Your task to perform on an android device: Show me recent news Image 0: 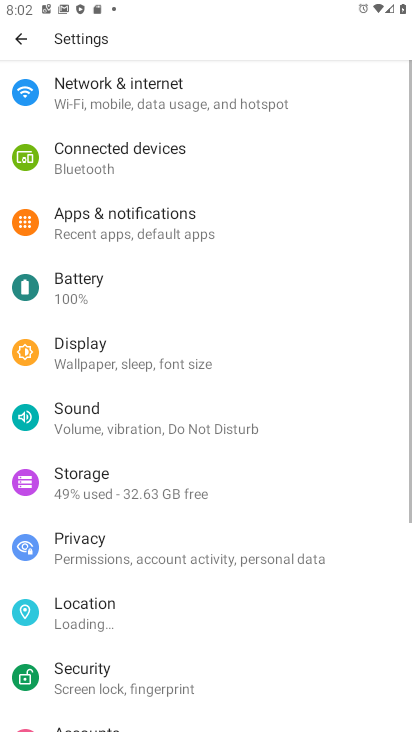
Step 0: press home button
Your task to perform on an android device: Show me recent news Image 1: 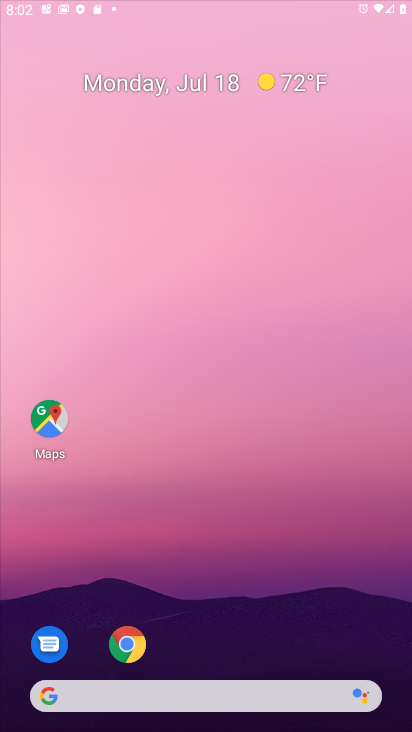
Step 1: drag from (396, 655) to (235, 7)
Your task to perform on an android device: Show me recent news Image 2: 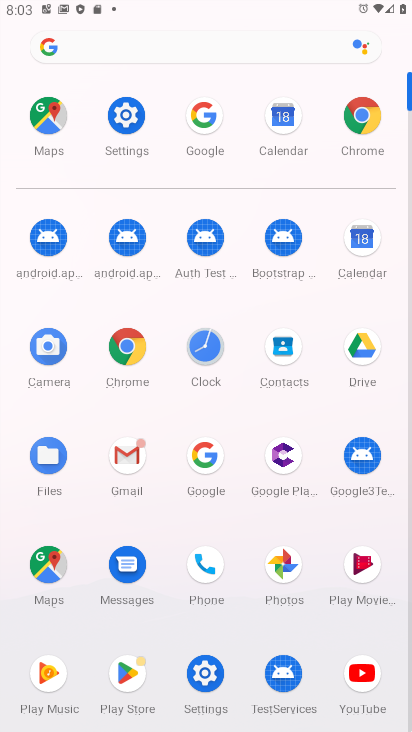
Step 2: click (202, 464)
Your task to perform on an android device: Show me recent news Image 3: 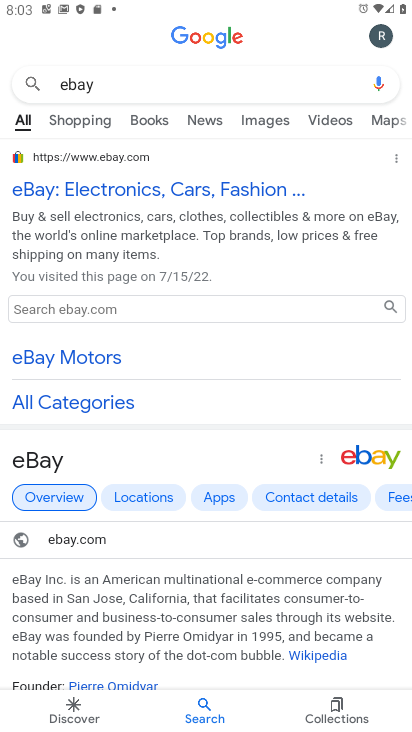
Step 3: press back button
Your task to perform on an android device: Show me recent news Image 4: 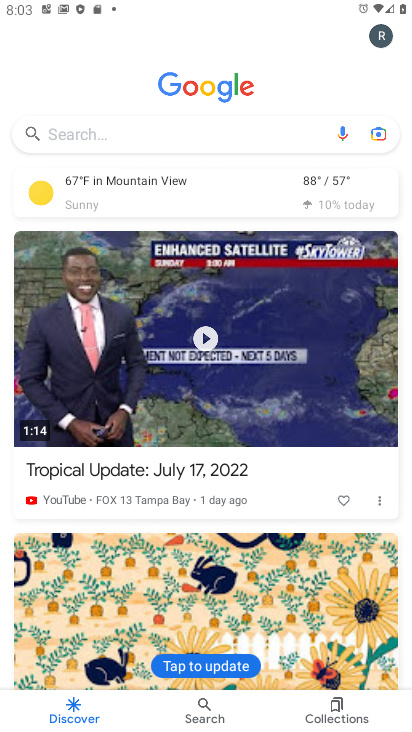
Step 4: click (89, 124)
Your task to perform on an android device: Show me recent news Image 5: 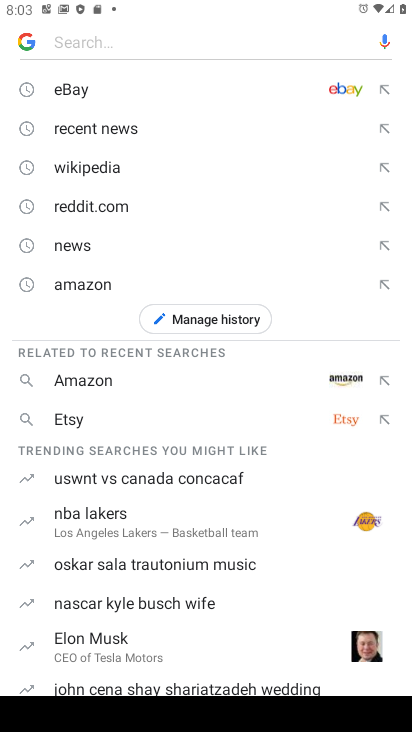
Step 5: click (109, 138)
Your task to perform on an android device: Show me recent news Image 6: 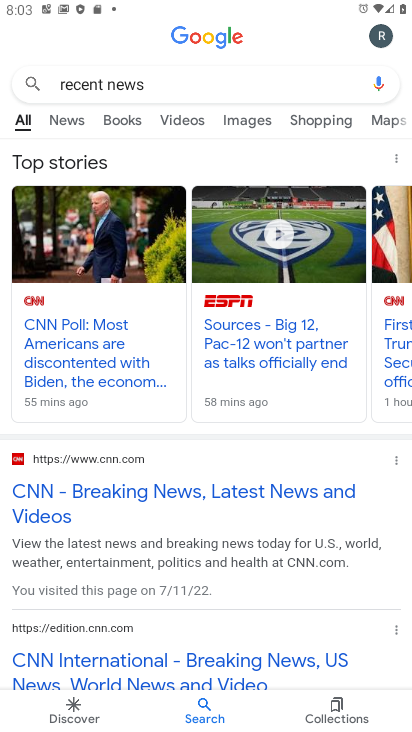
Step 6: task complete